Your task to perform on an android device: Go to Yahoo.com Image 0: 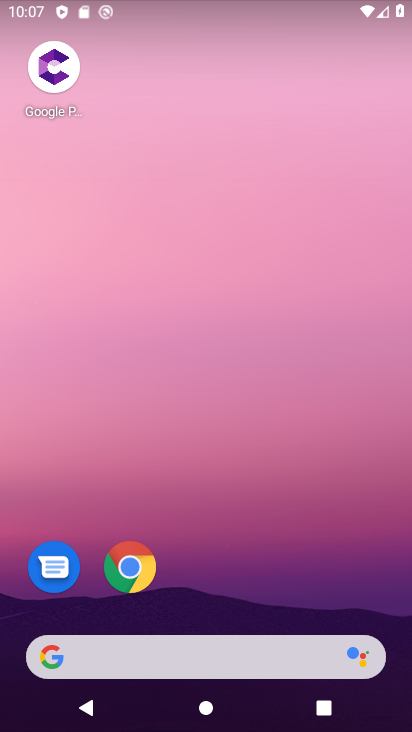
Step 0: click (149, 568)
Your task to perform on an android device: Go to Yahoo.com Image 1: 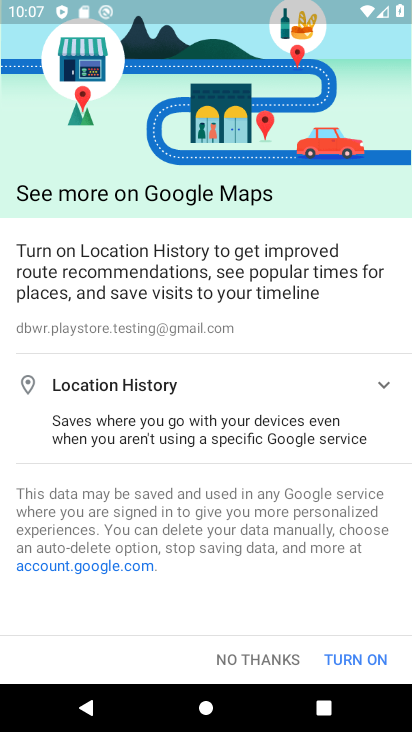
Step 1: press back button
Your task to perform on an android device: Go to Yahoo.com Image 2: 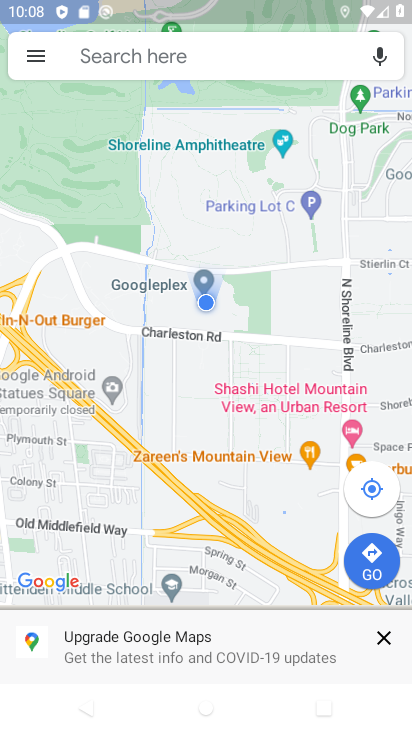
Step 2: press home button
Your task to perform on an android device: Go to Yahoo.com Image 3: 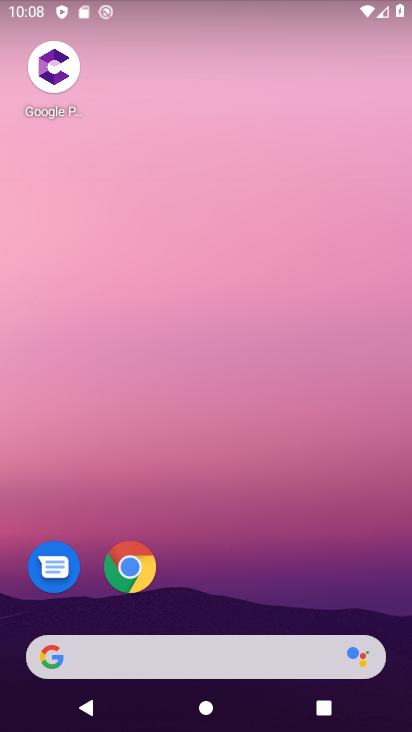
Step 3: click (139, 574)
Your task to perform on an android device: Go to Yahoo.com Image 4: 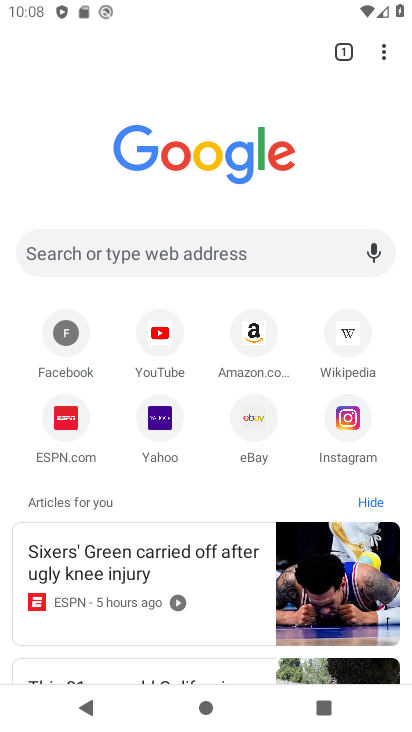
Step 4: click (156, 425)
Your task to perform on an android device: Go to Yahoo.com Image 5: 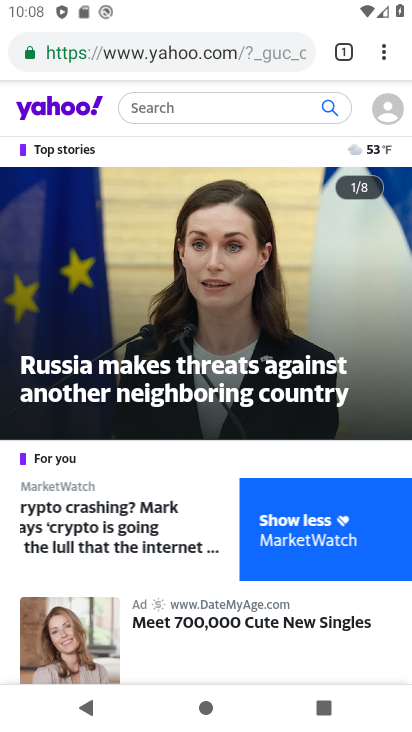
Step 5: task complete